Your task to perform on an android device: Go to ESPN.com Image 0: 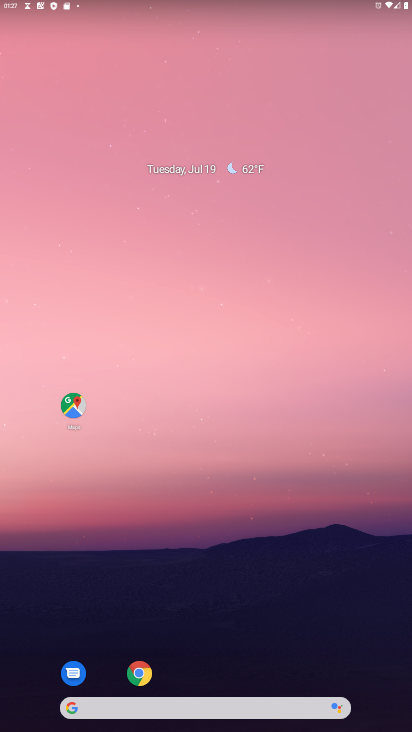
Step 0: drag from (193, 641) to (198, 126)
Your task to perform on an android device: Go to ESPN.com Image 1: 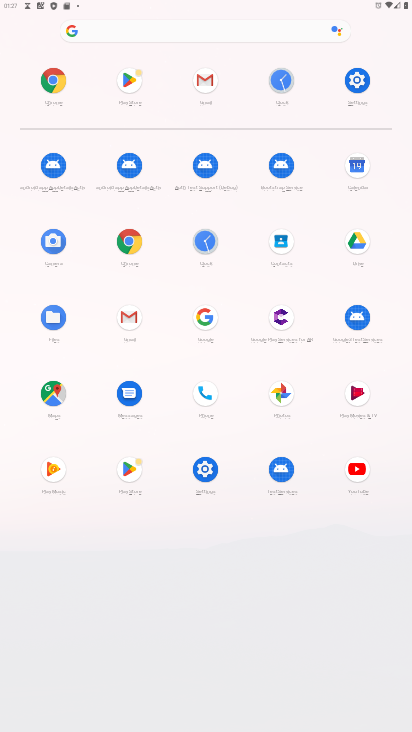
Step 1: click (120, 247)
Your task to perform on an android device: Go to ESPN.com Image 2: 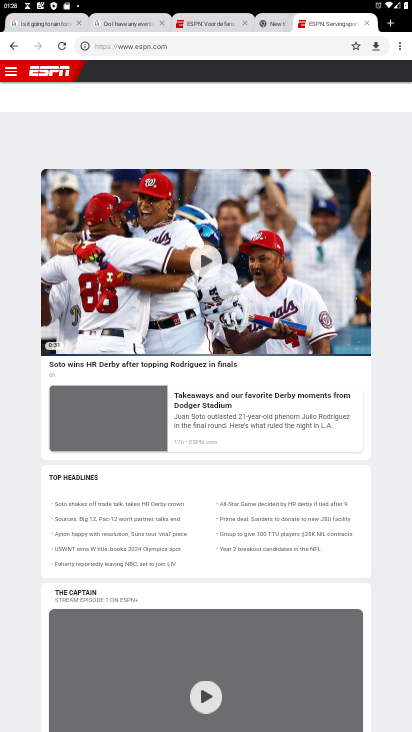
Step 2: task complete